Your task to perform on an android device: Open internet settings Image 0: 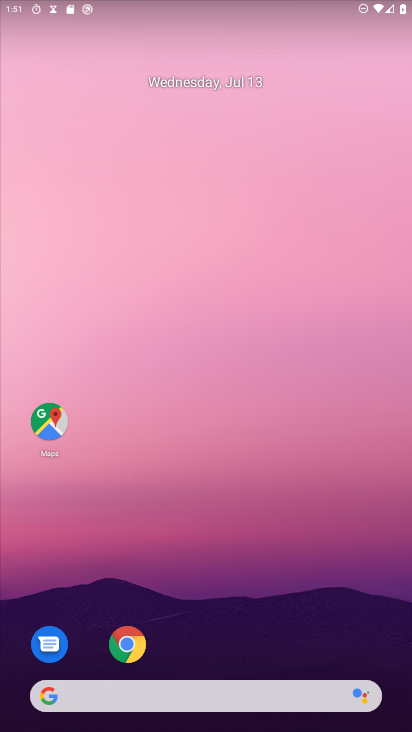
Step 0: press home button
Your task to perform on an android device: Open internet settings Image 1: 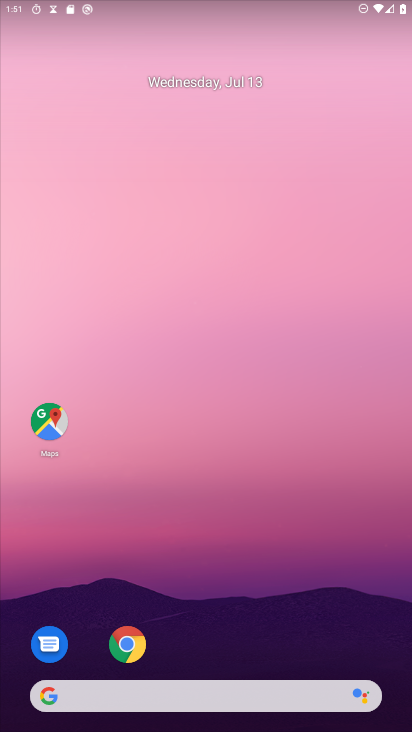
Step 1: drag from (325, 603) to (300, 84)
Your task to perform on an android device: Open internet settings Image 2: 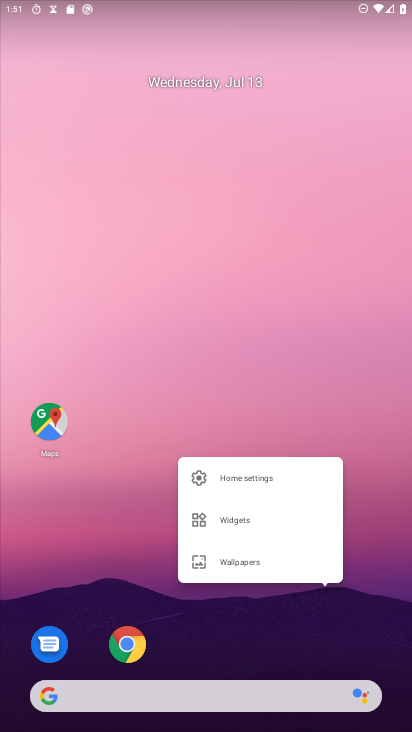
Step 2: drag from (110, 556) to (202, 13)
Your task to perform on an android device: Open internet settings Image 3: 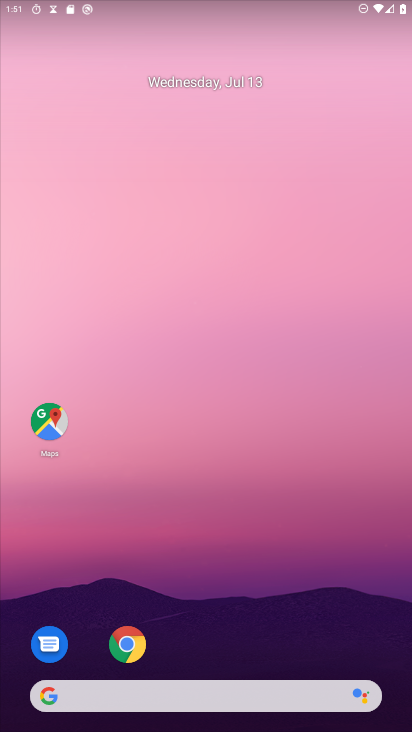
Step 3: drag from (211, 589) to (197, 10)
Your task to perform on an android device: Open internet settings Image 4: 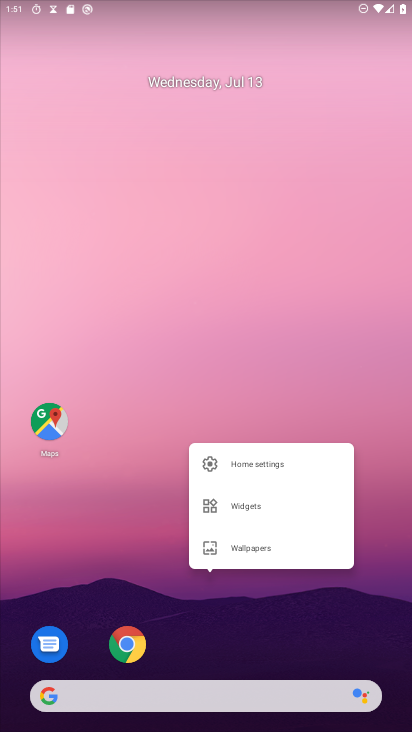
Step 4: drag from (144, 504) to (182, 6)
Your task to perform on an android device: Open internet settings Image 5: 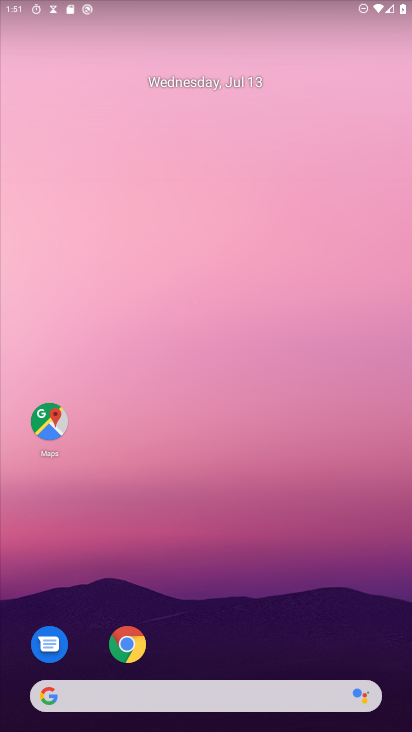
Step 5: drag from (245, 565) to (249, 4)
Your task to perform on an android device: Open internet settings Image 6: 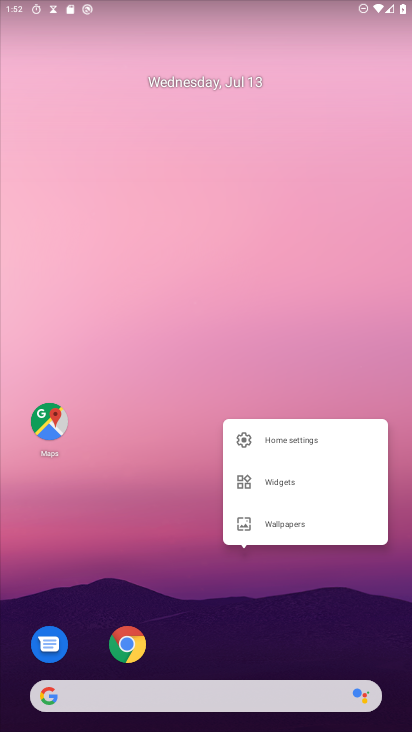
Step 6: drag from (190, 612) to (156, 5)
Your task to perform on an android device: Open internet settings Image 7: 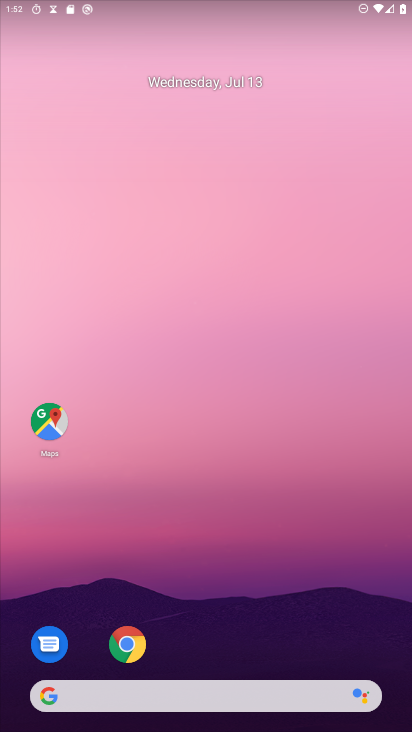
Step 7: drag from (234, 579) to (201, 6)
Your task to perform on an android device: Open internet settings Image 8: 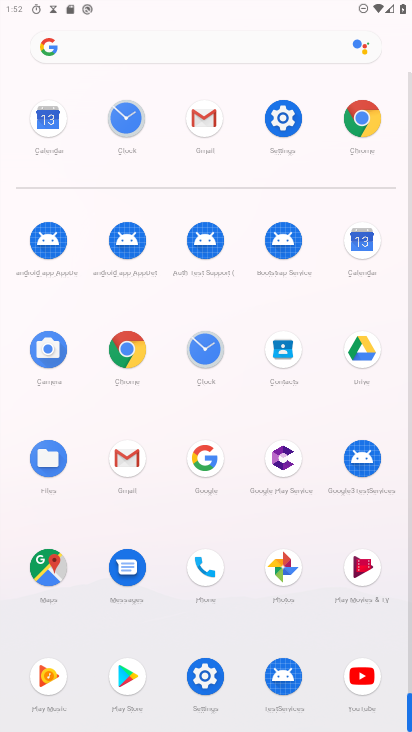
Step 8: click (294, 113)
Your task to perform on an android device: Open internet settings Image 9: 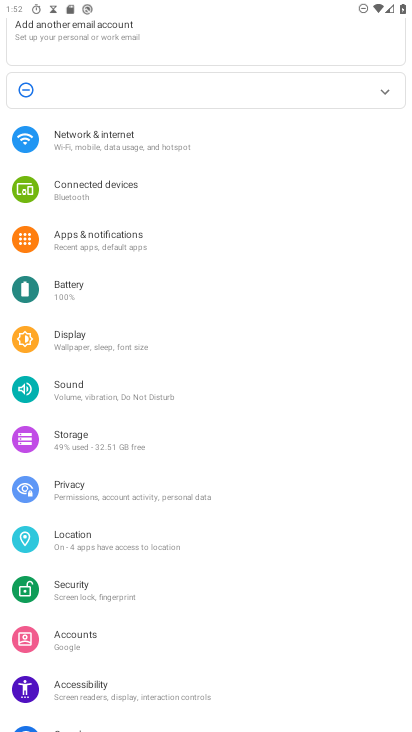
Step 9: click (95, 133)
Your task to perform on an android device: Open internet settings Image 10: 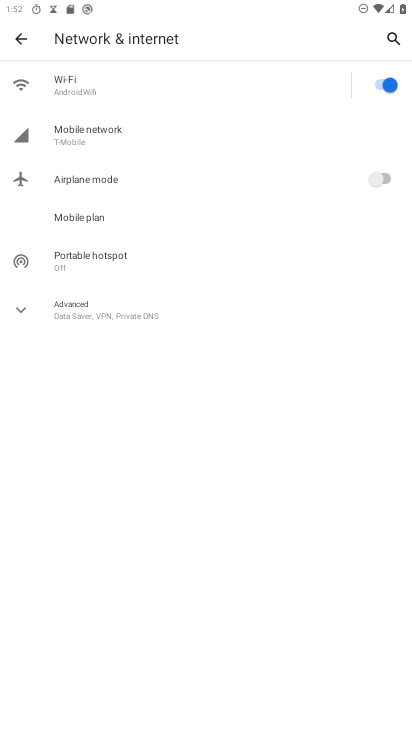
Step 10: task complete